Your task to perform on an android device: Open location settings Image 0: 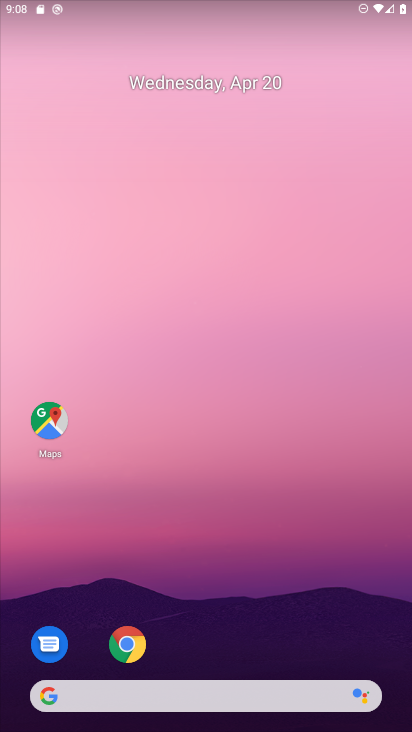
Step 0: drag from (345, 622) to (234, 131)
Your task to perform on an android device: Open location settings Image 1: 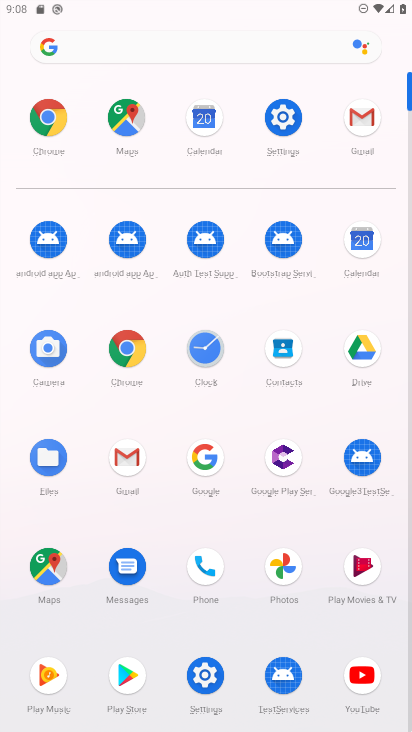
Step 1: click (205, 684)
Your task to perform on an android device: Open location settings Image 2: 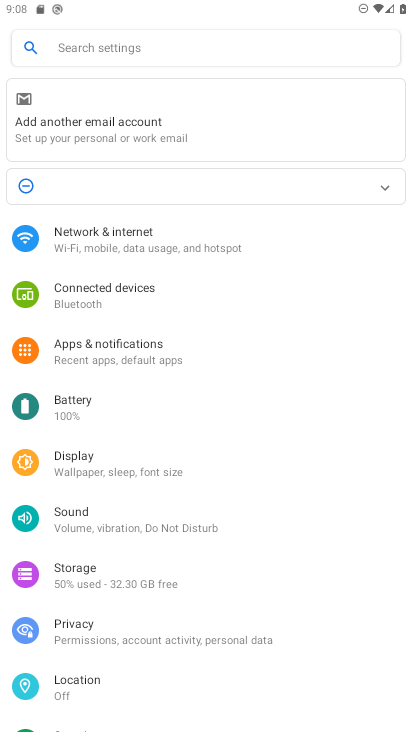
Step 2: click (103, 675)
Your task to perform on an android device: Open location settings Image 3: 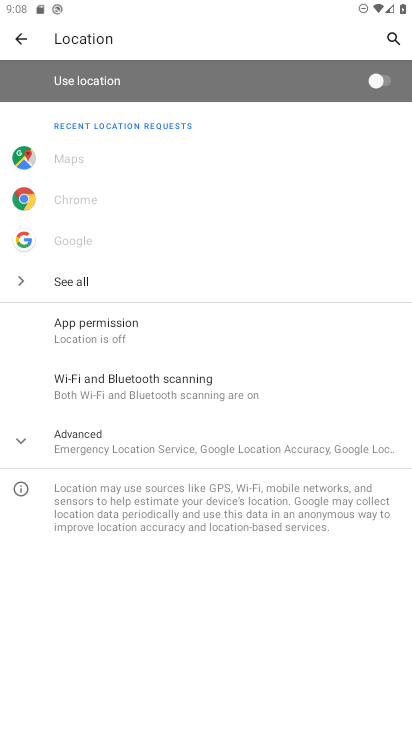
Step 3: task complete